Your task to perform on an android device: delete location history Image 0: 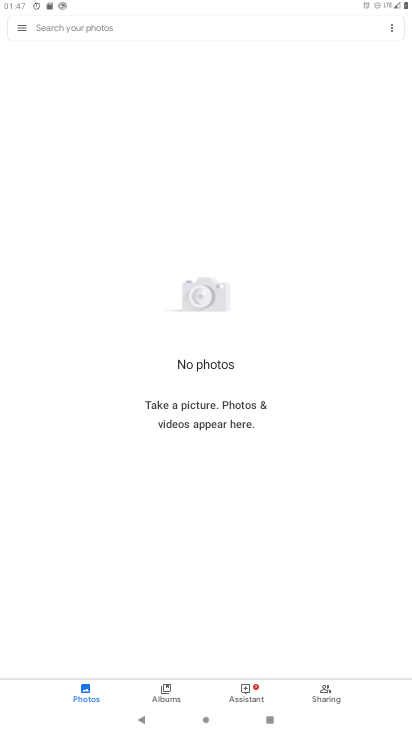
Step 0: press home button
Your task to perform on an android device: delete location history Image 1: 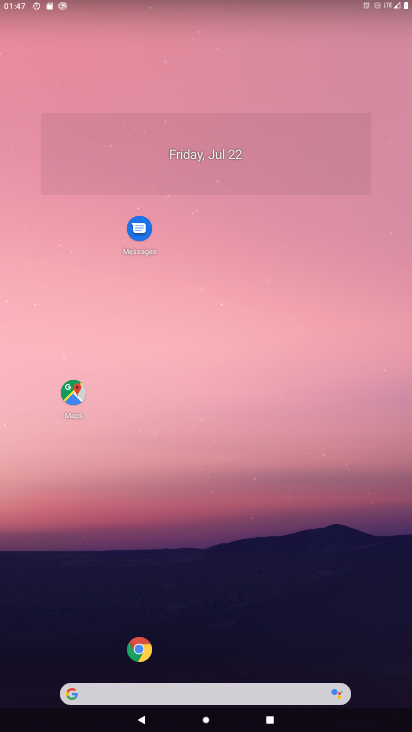
Step 1: drag from (50, 657) to (146, 225)
Your task to perform on an android device: delete location history Image 2: 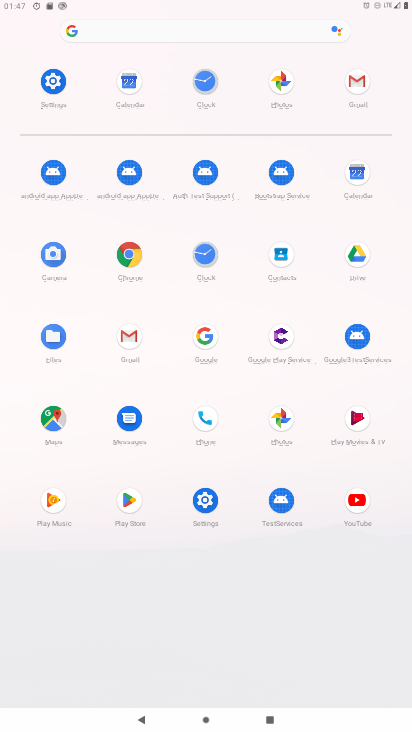
Step 2: click (197, 508)
Your task to perform on an android device: delete location history Image 3: 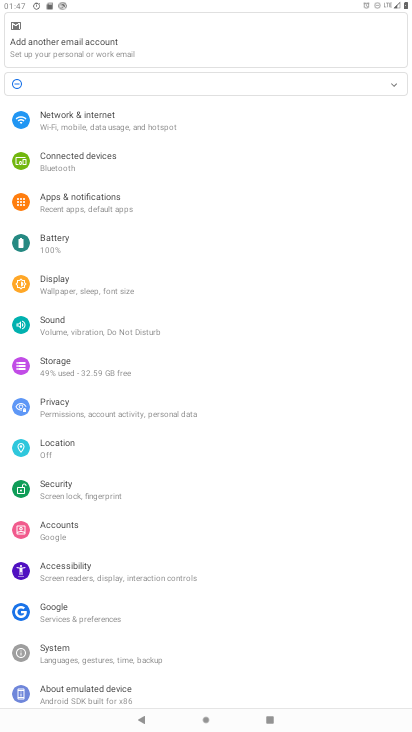
Step 3: click (75, 449)
Your task to perform on an android device: delete location history Image 4: 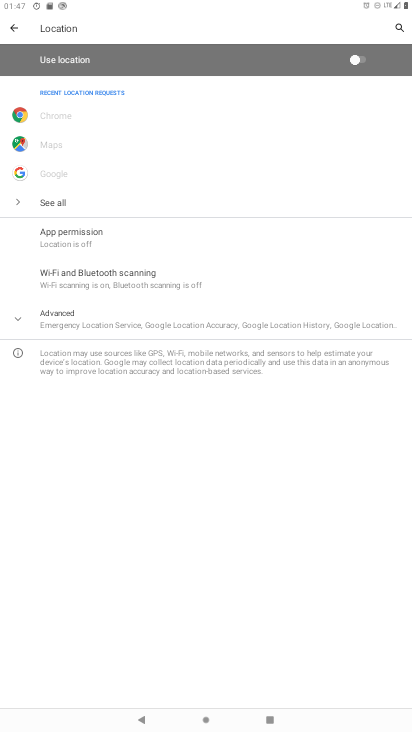
Step 4: click (91, 316)
Your task to perform on an android device: delete location history Image 5: 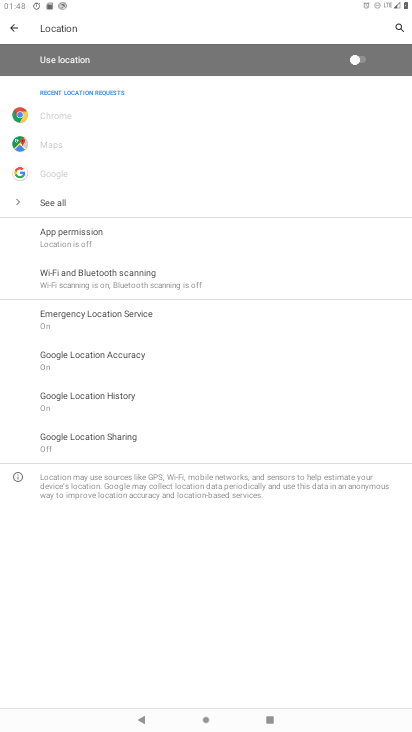
Step 5: click (106, 404)
Your task to perform on an android device: delete location history Image 6: 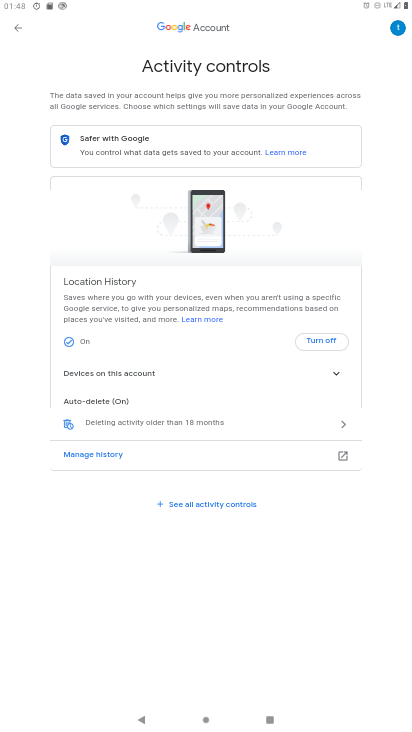
Step 6: click (284, 454)
Your task to perform on an android device: delete location history Image 7: 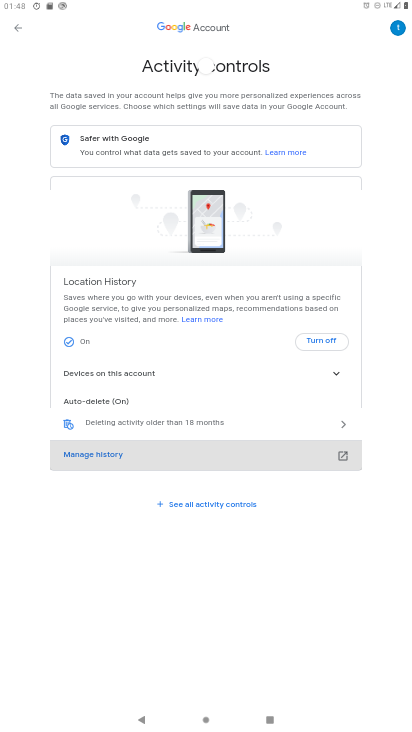
Step 7: click (83, 449)
Your task to perform on an android device: delete location history Image 8: 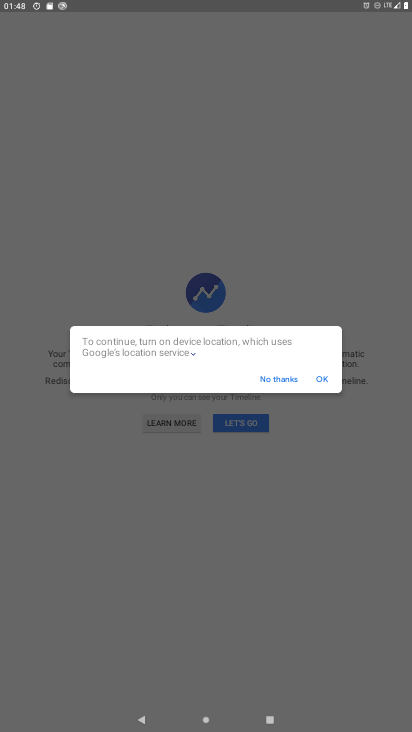
Step 8: click (320, 380)
Your task to perform on an android device: delete location history Image 9: 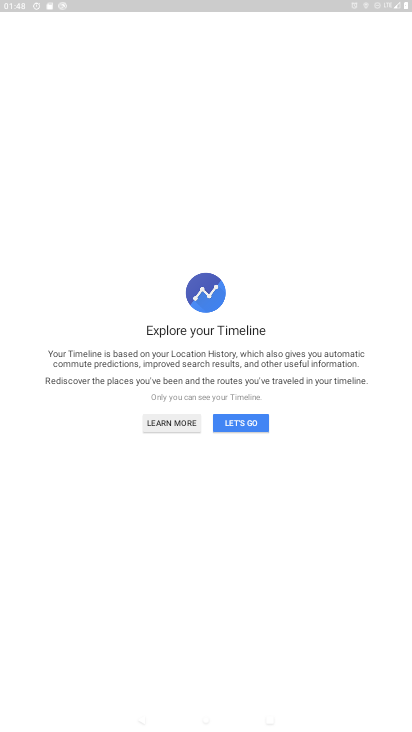
Step 9: task complete